Your task to perform on an android device: Open the web browser Image 0: 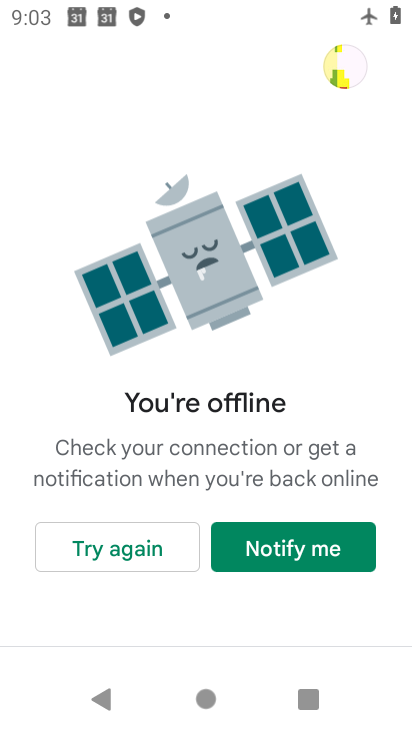
Step 0: press home button
Your task to perform on an android device: Open the web browser Image 1: 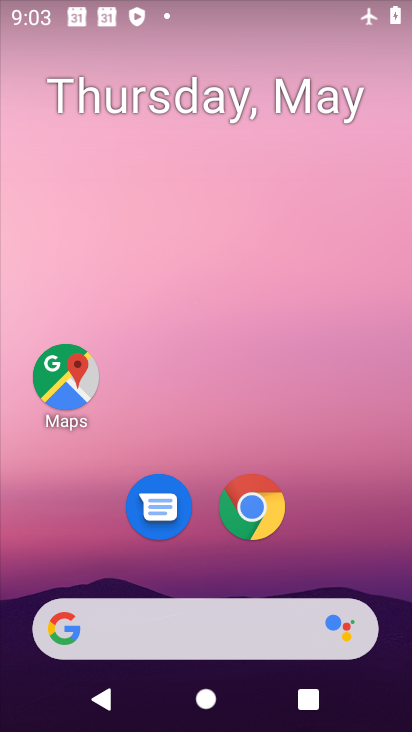
Step 1: click (270, 525)
Your task to perform on an android device: Open the web browser Image 2: 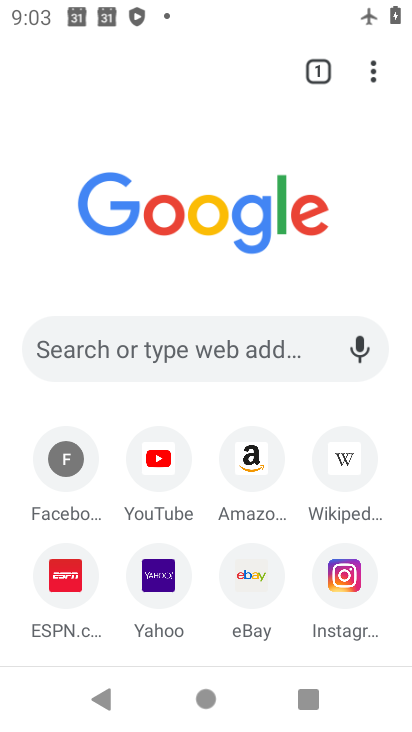
Step 2: task complete